Your task to perform on an android device: open device folders in google photos Image 0: 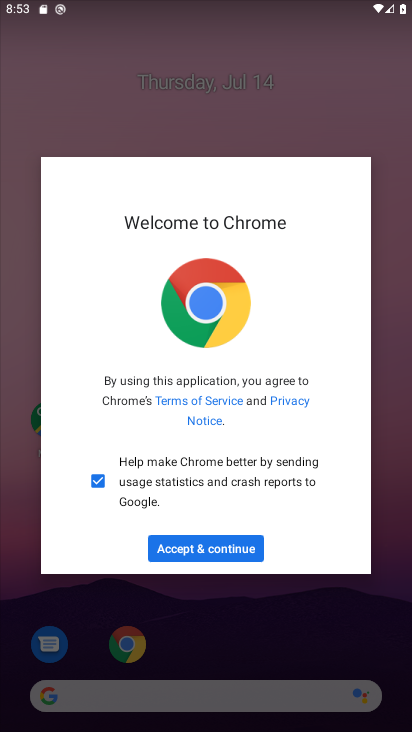
Step 0: click (171, 529)
Your task to perform on an android device: open device folders in google photos Image 1: 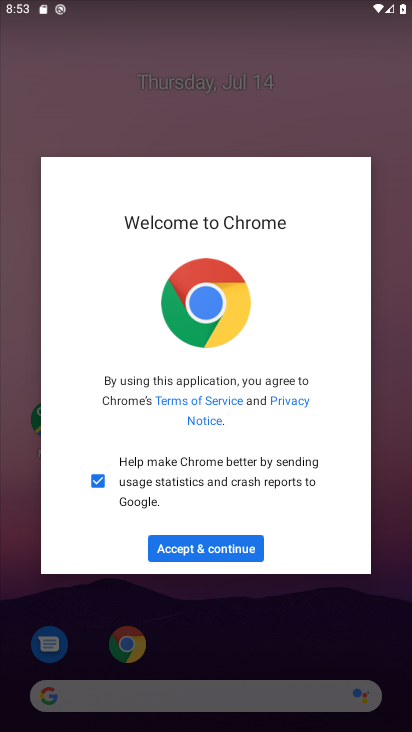
Step 1: press home button
Your task to perform on an android device: open device folders in google photos Image 2: 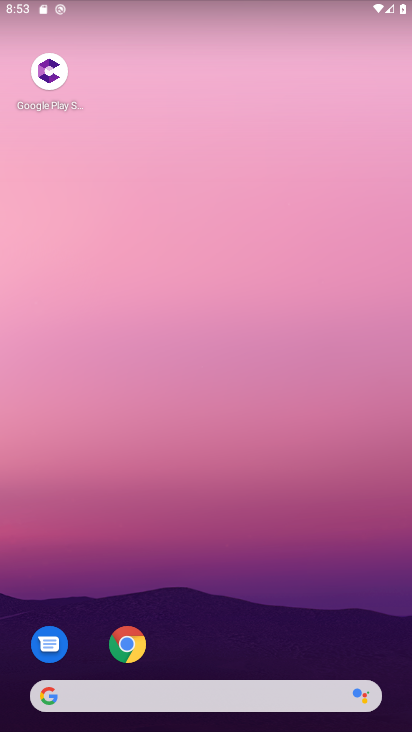
Step 2: drag from (183, 690) to (221, 470)
Your task to perform on an android device: open device folders in google photos Image 3: 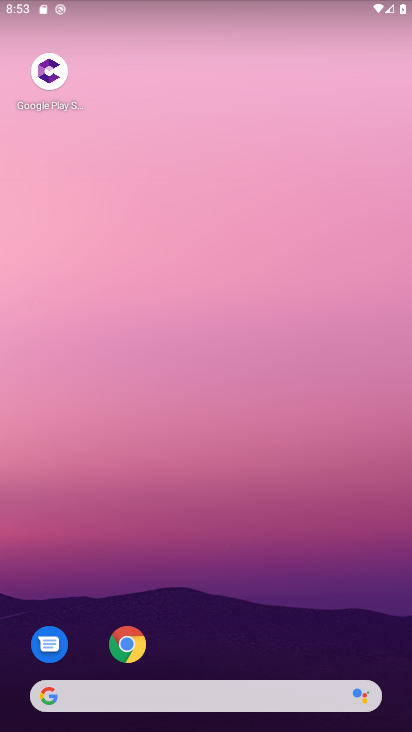
Step 3: drag from (271, 678) to (267, 274)
Your task to perform on an android device: open device folders in google photos Image 4: 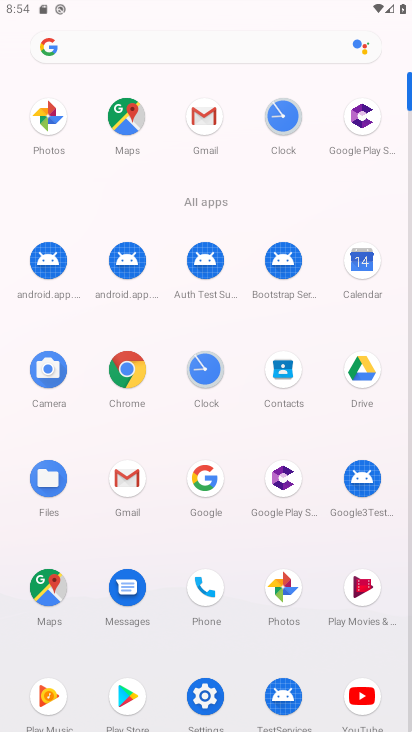
Step 4: click (286, 590)
Your task to perform on an android device: open device folders in google photos Image 5: 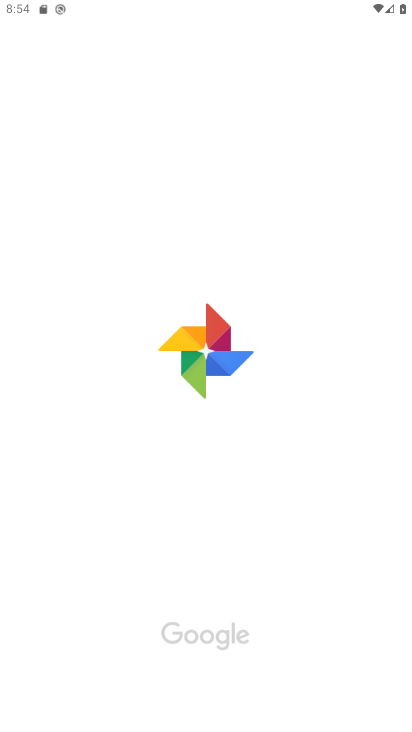
Step 5: task complete